Your task to perform on an android device: Open Yahoo.com Image 0: 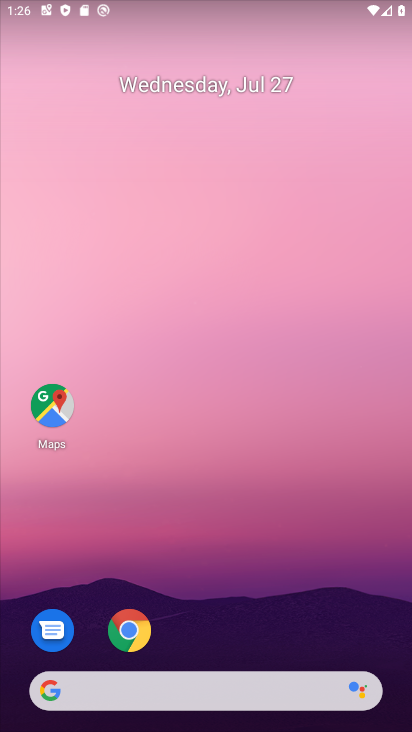
Step 0: click (140, 643)
Your task to perform on an android device: Open Yahoo.com Image 1: 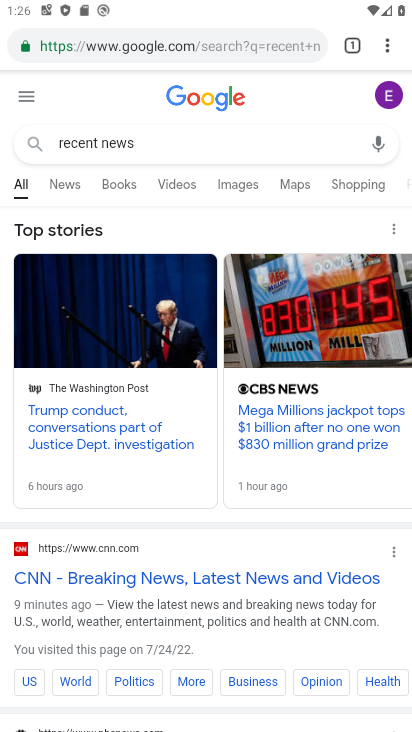
Step 1: click (198, 39)
Your task to perform on an android device: Open Yahoo.com Image 2: 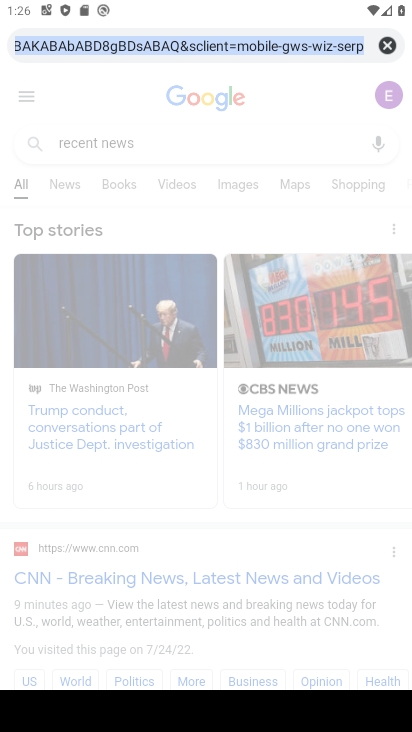
Step 2: type "yahoo.com"
Your task to perform on an android device: Open Yahoo.com Image 3: 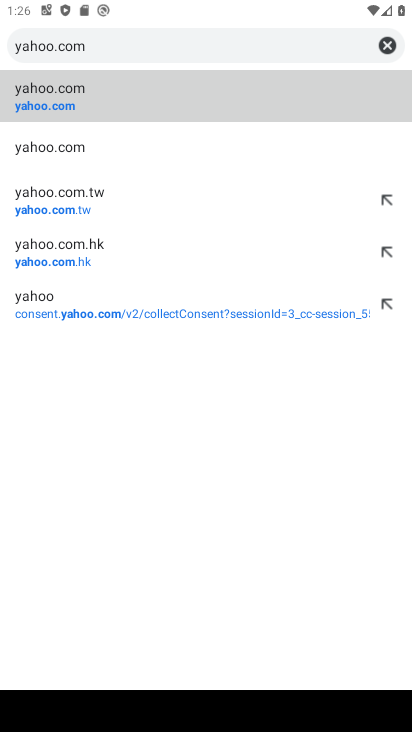
Step 3: click (245, 102)
Your task to perform on an android device: Open Yahoo.com Image 4: 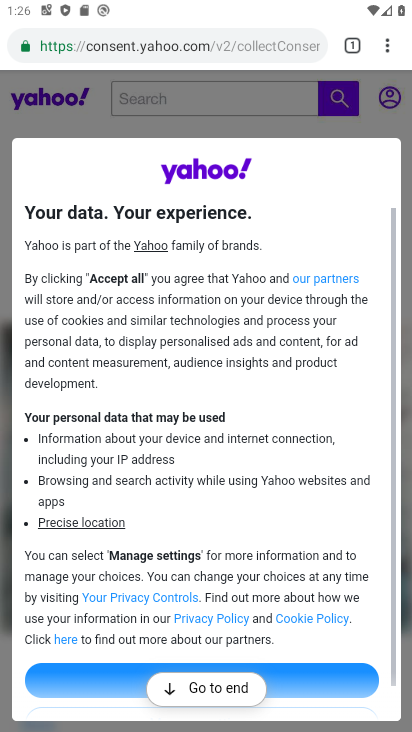
Step 4: task complete